Your task to perform on an android device: change alarm snooze length Image 0: 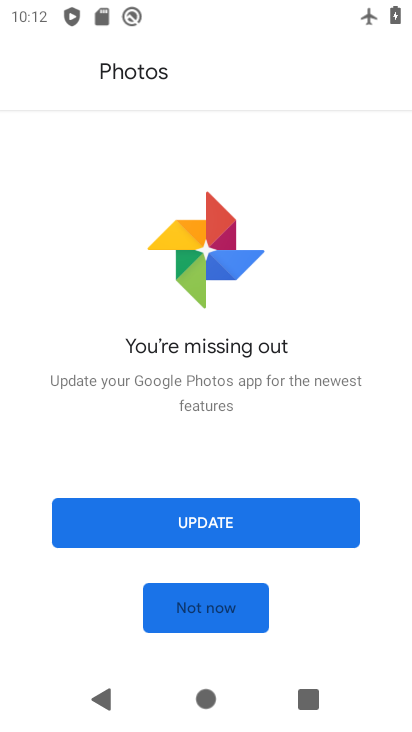
Step 0: press home button
Your task to perform on an android device: change alarm snooze length Image 1: 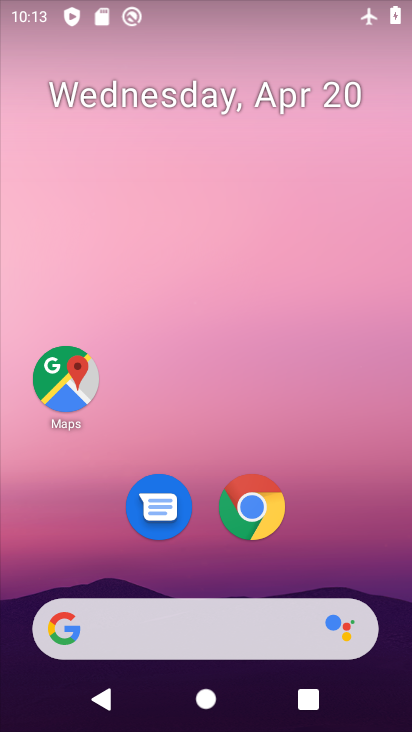
Step 1: drag from (206, 587) to (184, 28)
Your task to perform on an android device: change alarm snooze length Image 2: 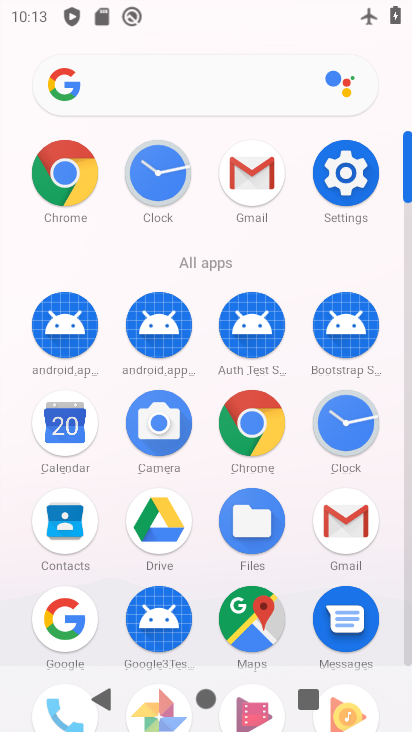
Step 2: click (366, 431)
Your task to perform on an android device: change alarm snooze length Image 3: 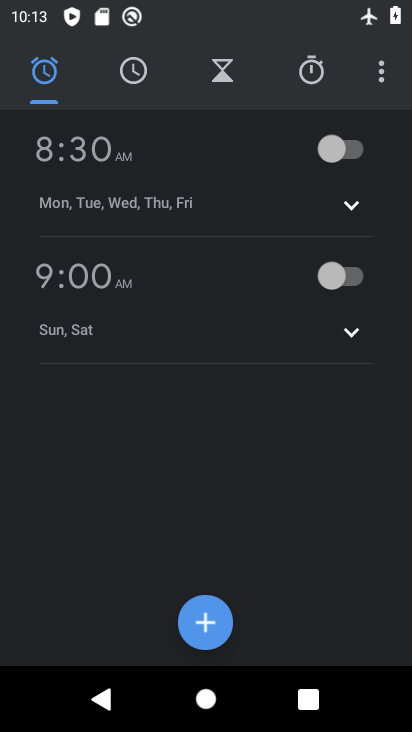
Step 3: click (388, 76)
Your task to perform on an android device: change alarm snooze length Image 4: 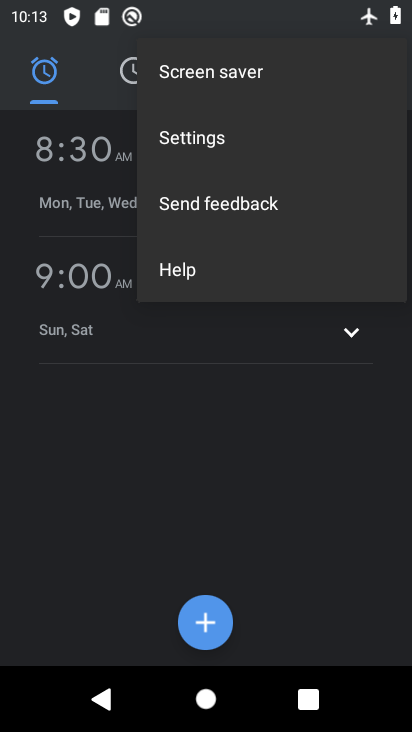
Step 4: click (187, 151)
Your task to perform on an android device: change alarm snooze length Image 5: 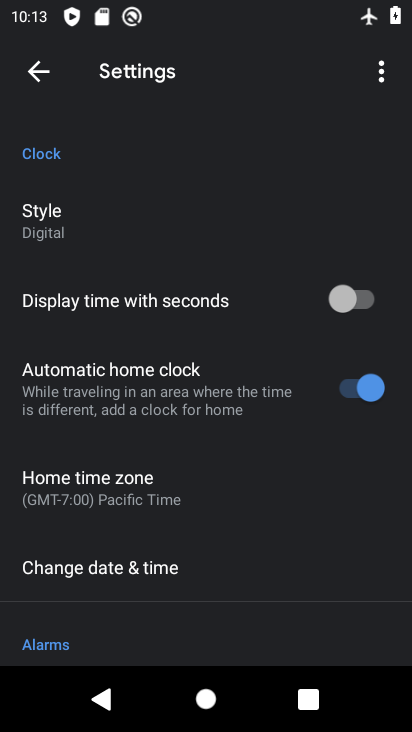
Step 5: drag from (175, 523) to (258, 191)
Your task to perform on an android device: change alarm snooze length Image 6: 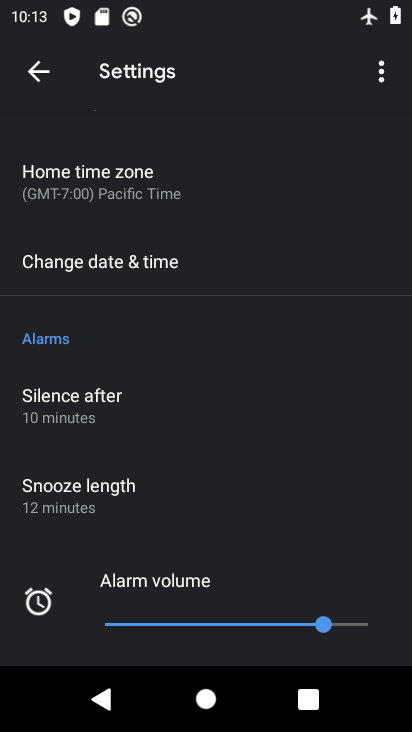
Step 6: drag from (213, 594) to (256, 325)
Your task to perform on an android device: change alarm snooze length Image 7: 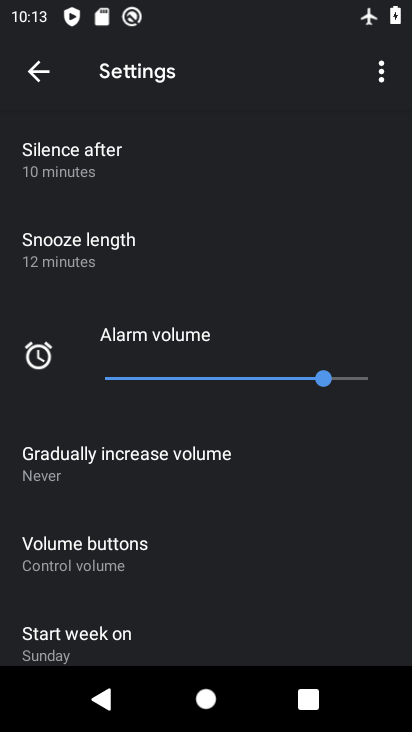
Step 7: click (81, 261)
Your task to perform on an android device: change alarm snooze length Image 8: 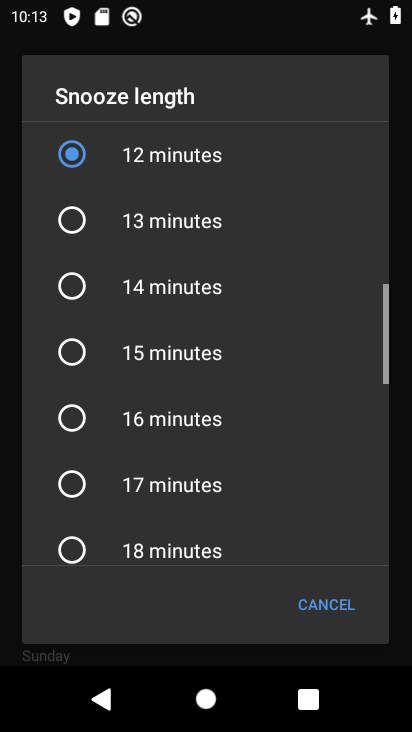
Step 8: click (166, 286)
Your task to perform on an android device: change alarm snooze length Image 9: 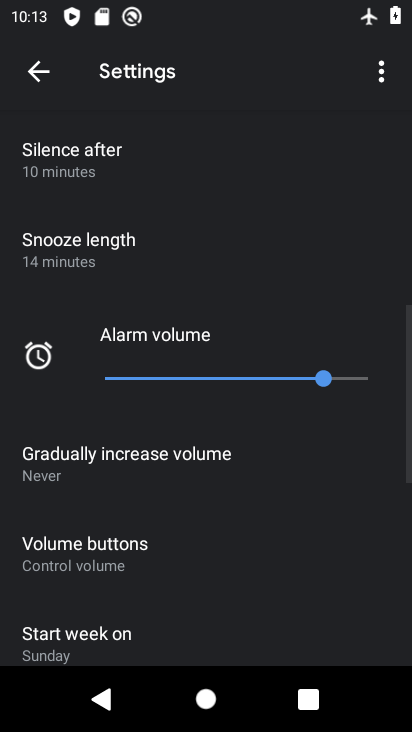
Step 9: task complete